Your task to perform on an android device: What is the recent news? Image 0: 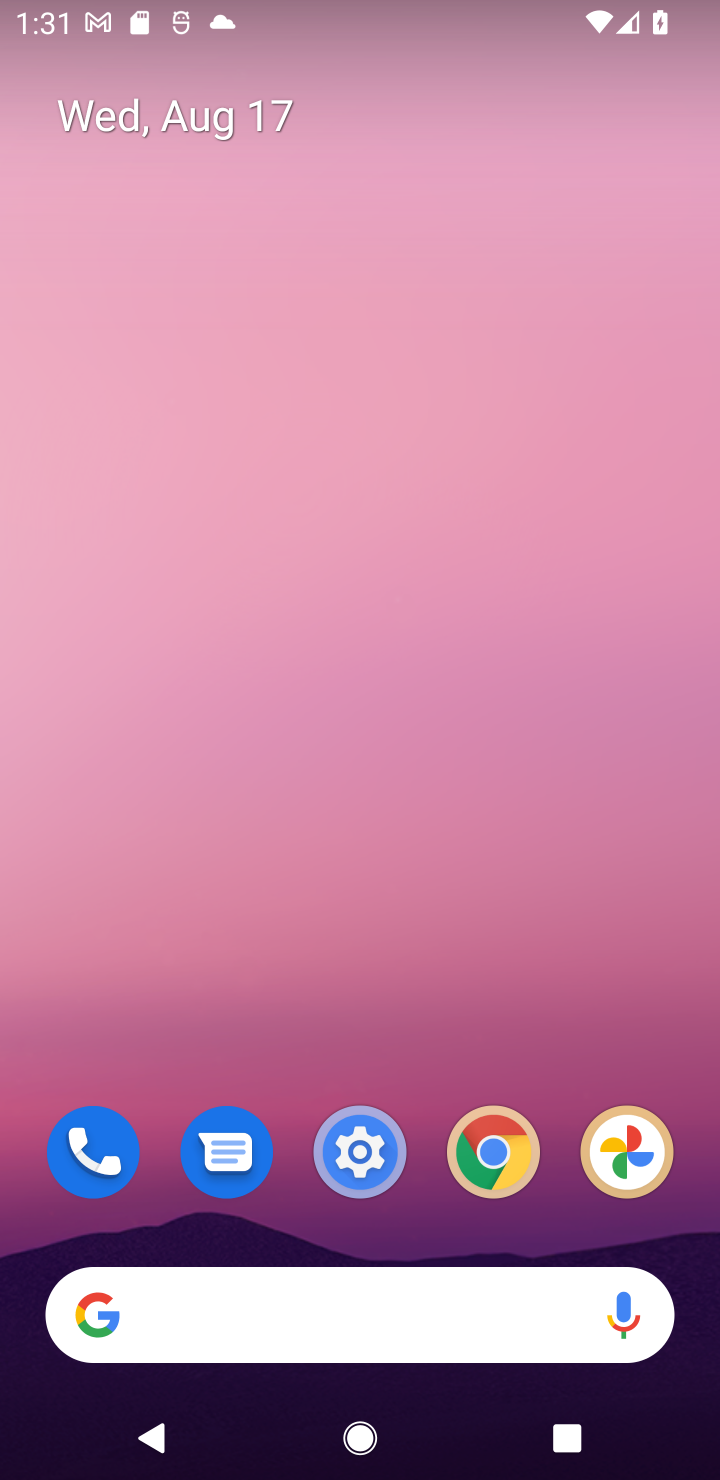
Step 0: drag from (677, 1220) to (417, 6)
Your task to perform on an android device: What is the recent news? Image 1: 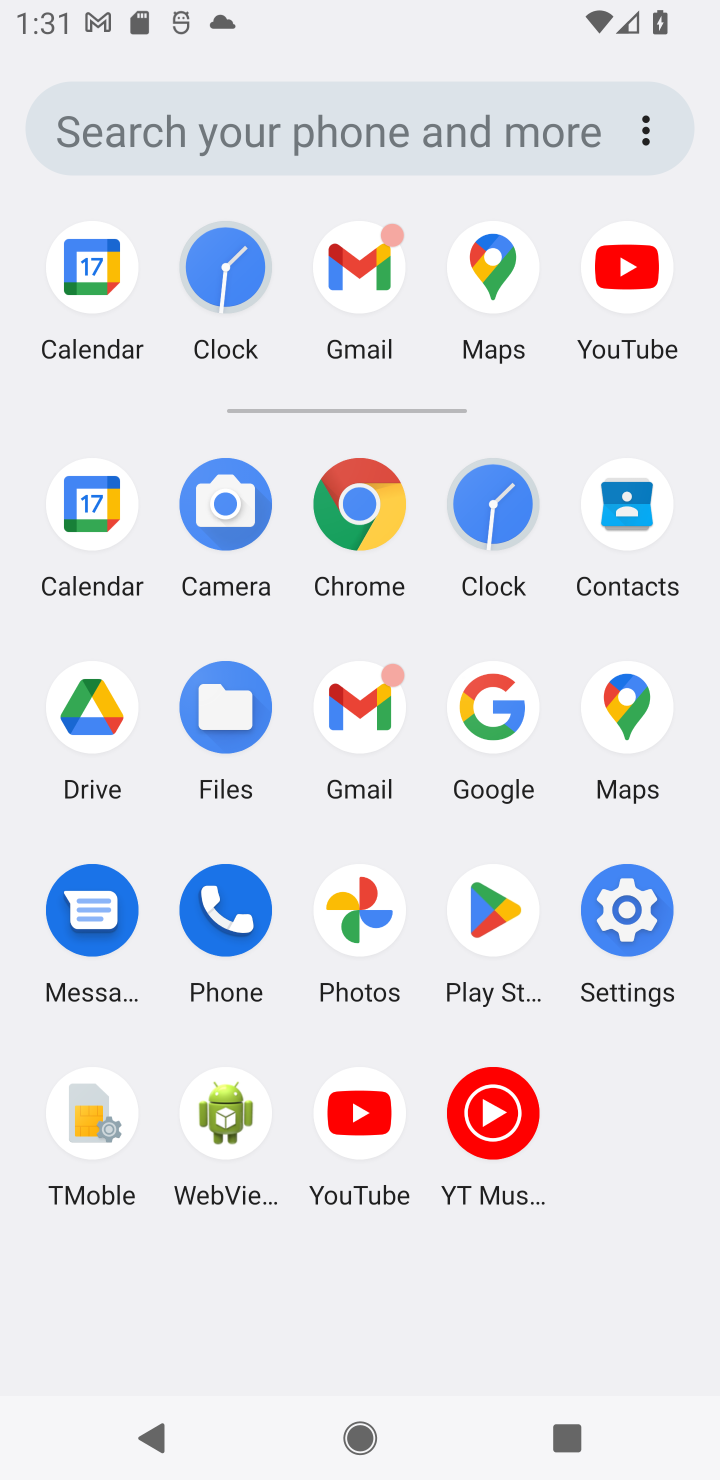
Step 1: click (490, 721)
Your task to perform on an android device: What is the recent news? Image 2: 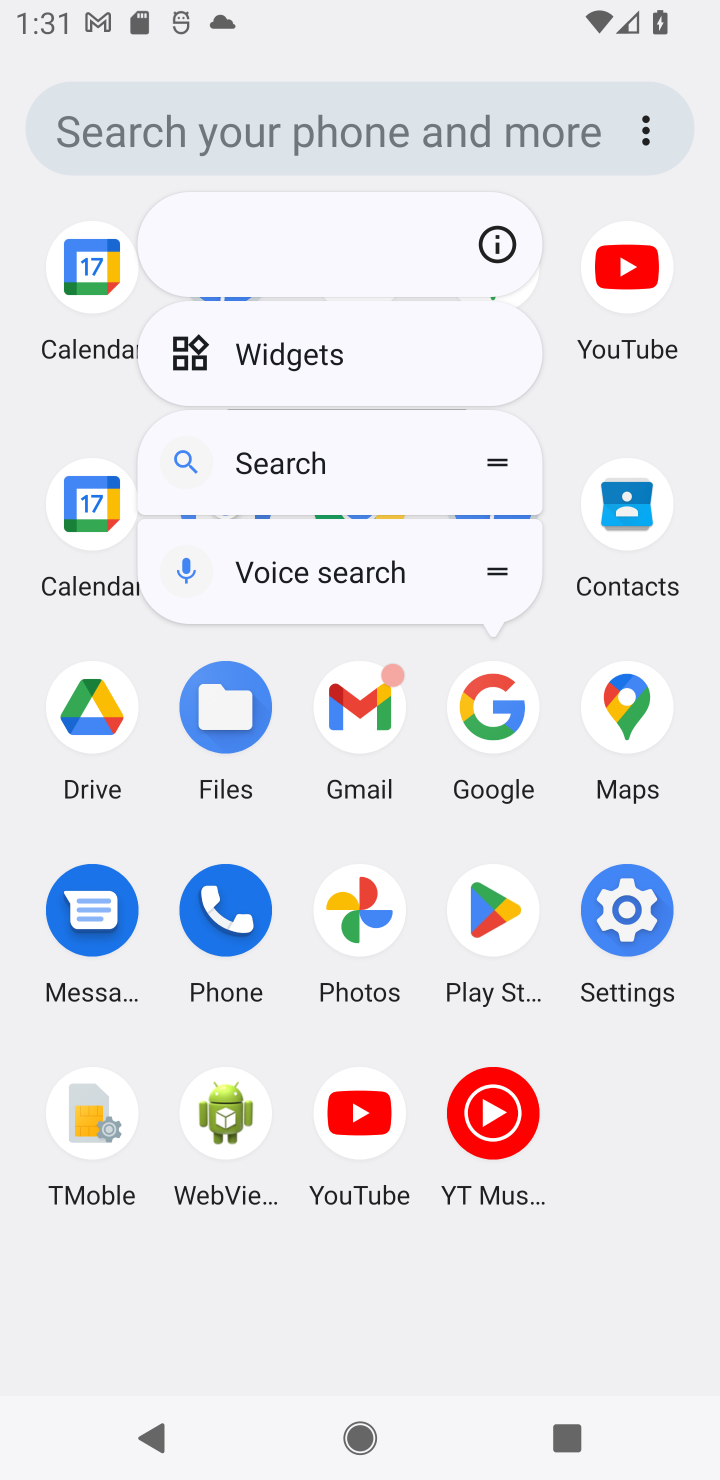
Step 2: click (490, 721)
Your task to perform on an android device: What is the recent news? Image 3: 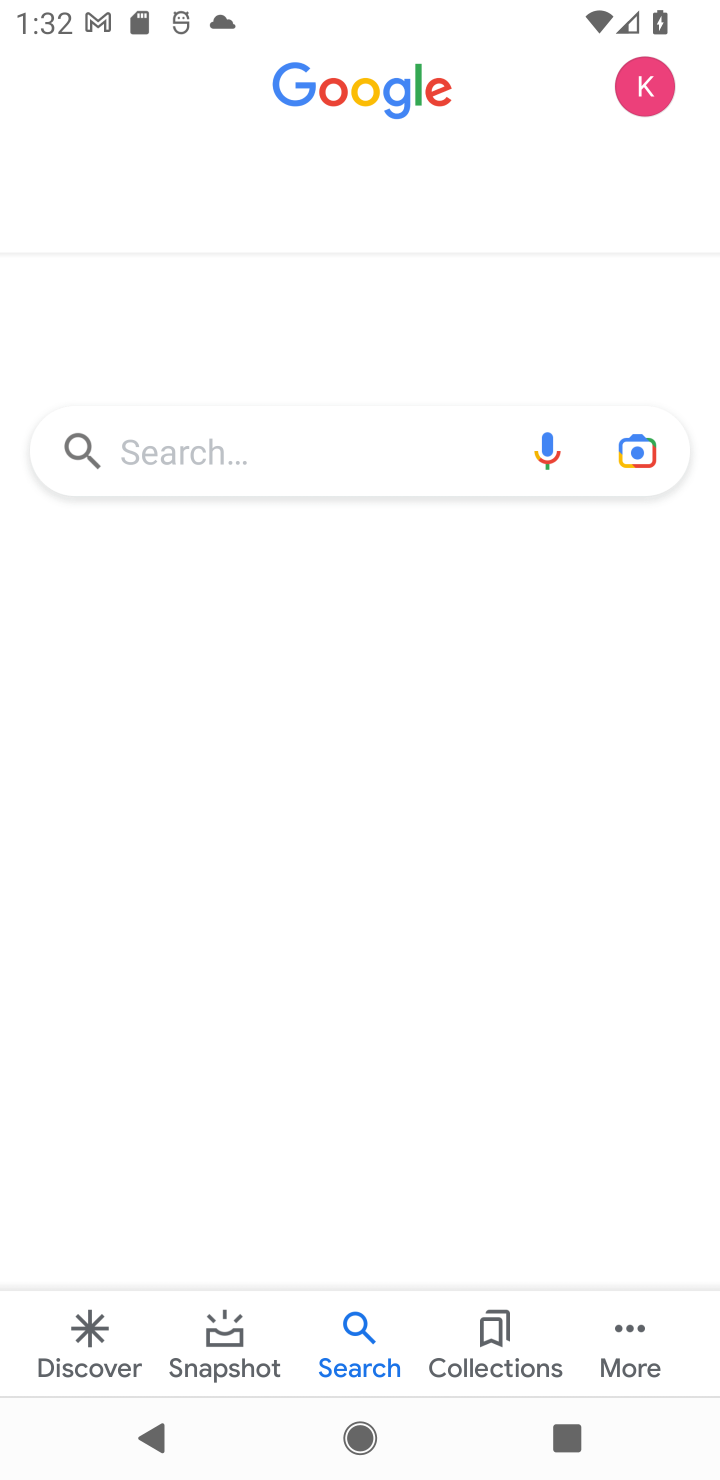
Step 3: click (305, 463)
Your task to perform on an android device: What is the recent news? Image 4: 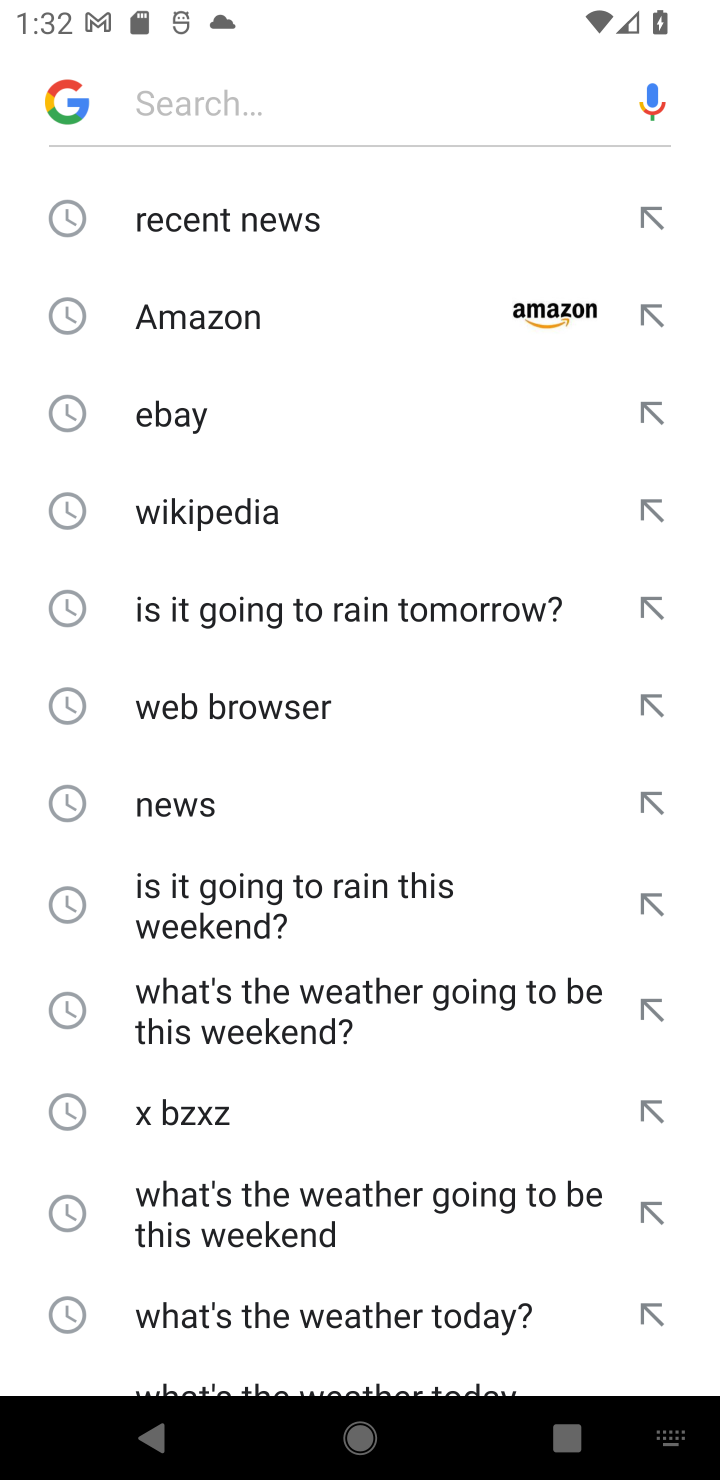
Step 4: click (261, 245)
Your task to perform on an android device: What is the recent news? Image 5: 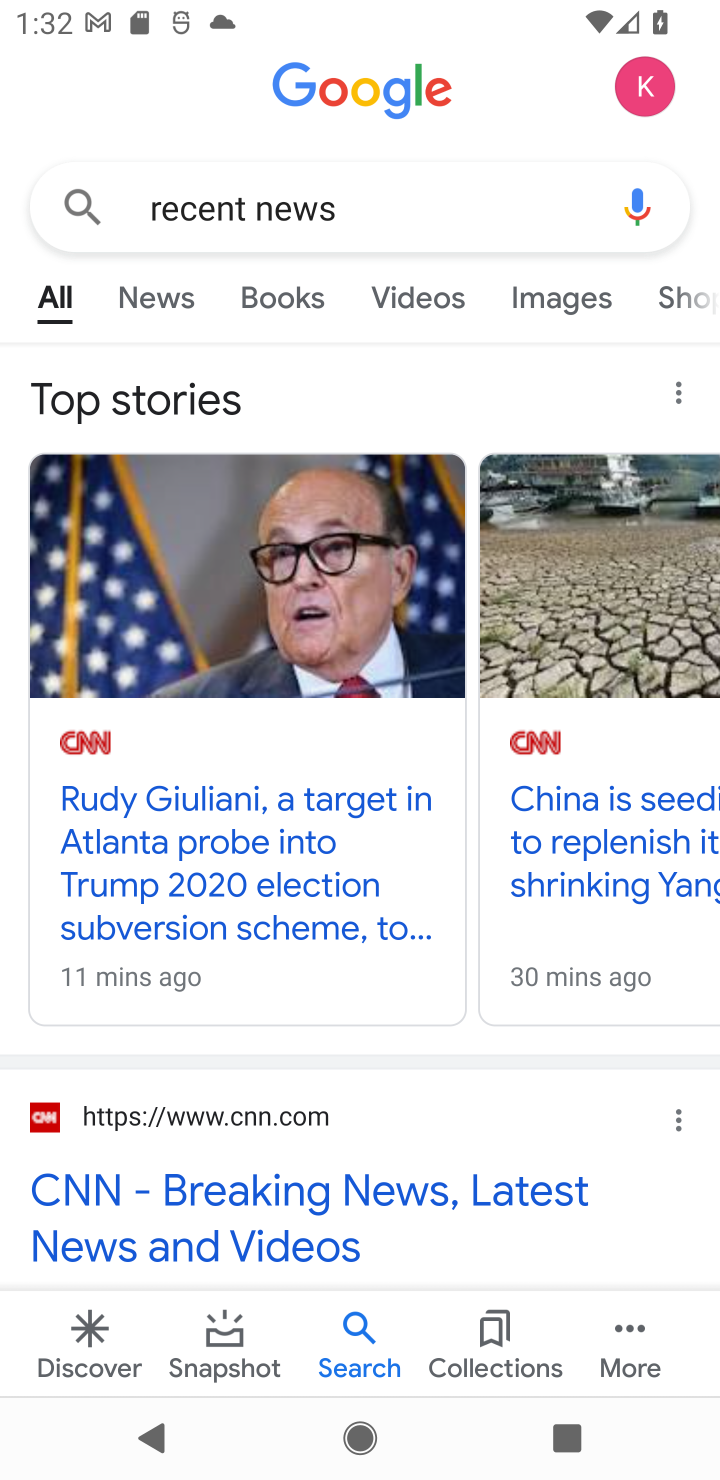
Step 5: task complete